Your task to perform on an android device: turn off notifications settings in the gmail app Image 0: 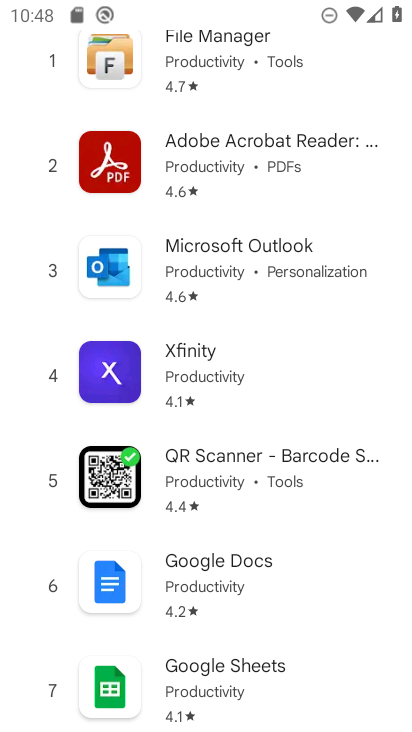
Step 0: press home button
Your task to perform on an android device: turn off notifications settings in the gmail app Image 1: 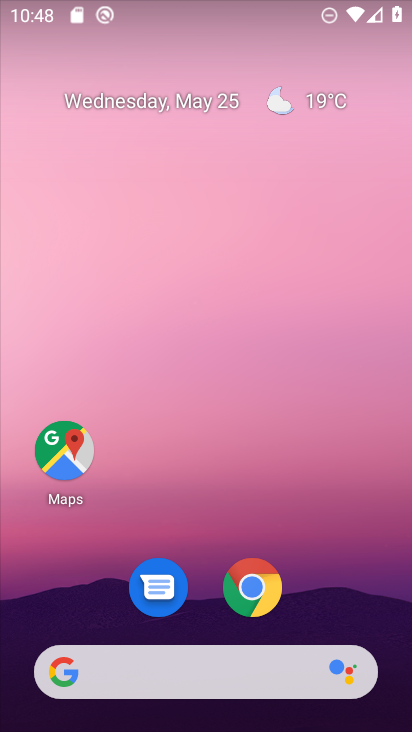
Step 1: drag from (373, 618) to (294, 82)
Your task to perform on an android device: turn off notifications settings in the gmail app Image 2: 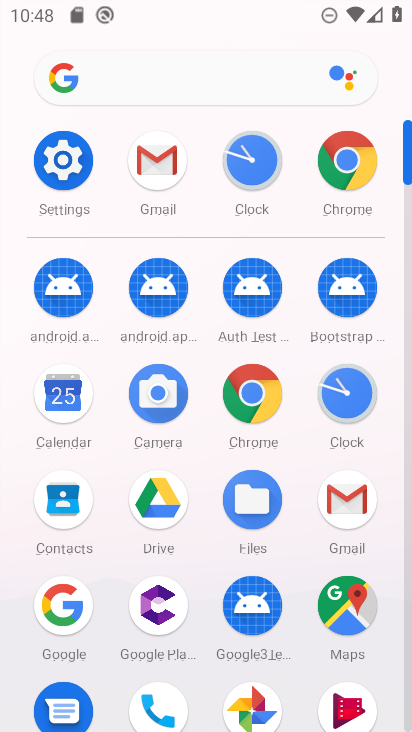
Step 2: click (409, 696)
Your task to perform on an android device: turn off notifications settings in the gmail app Image 3: 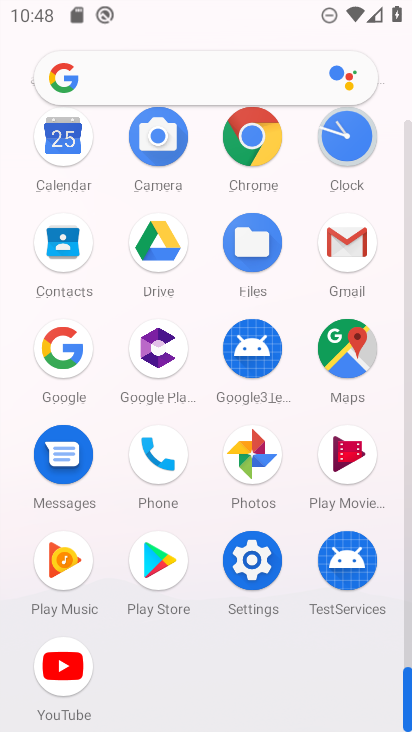
Step 3: click (347, 239)
Your task to perform on an android device: turn off notifications settings in the gmail app Image 4: 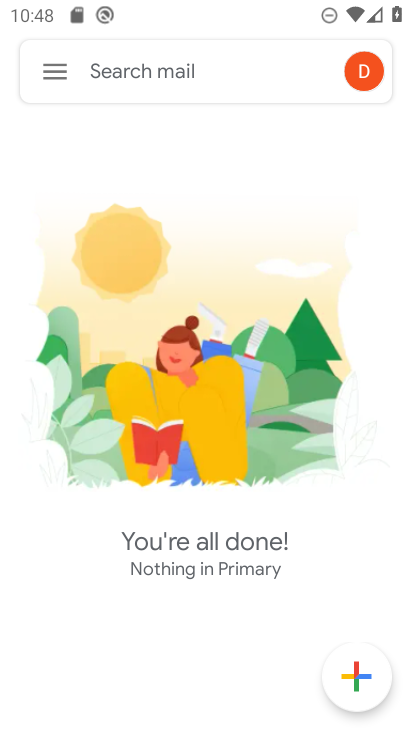
Step 4: click (57, 77)
Your task to perform on an android device: turn off notifications settings in the gmail app Image 5: 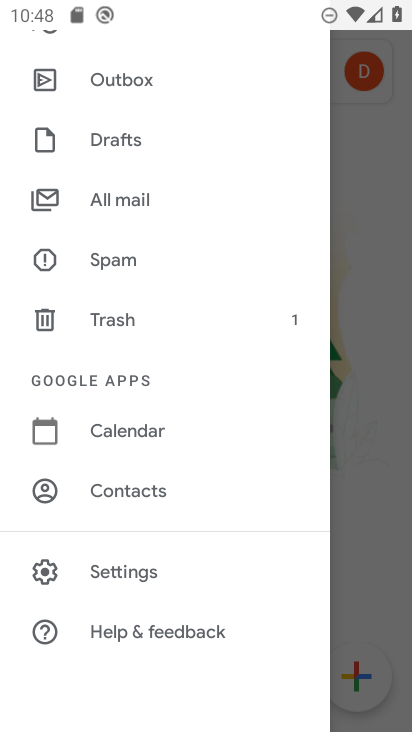
Step 5: click (141, 579)
Your task to perform on an android device: turn off notifications settings in the gmail app Image 6: 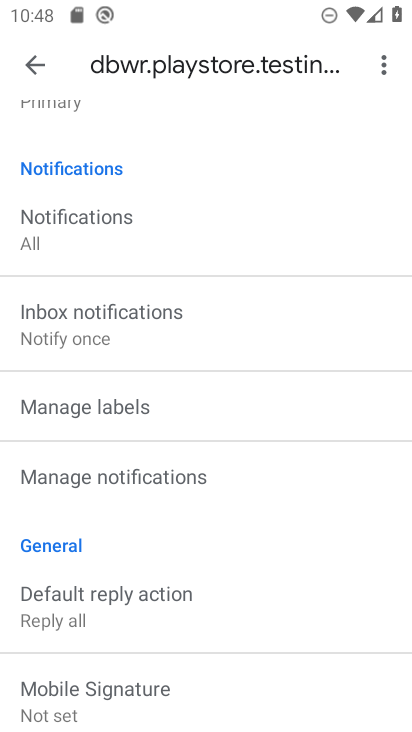
Step 6: click (127, 469)
Your task to perform on an android device: turn off notifications settings in the gmail app Image 7: 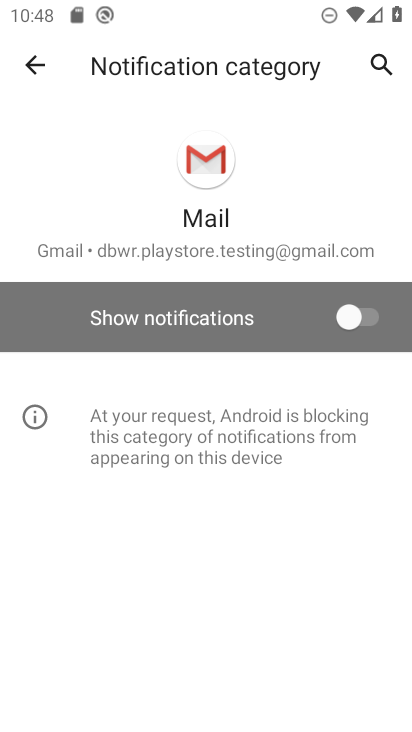
Step 7: task complete